Your task to perform on an android device: Go to Reddit.com Image 0: 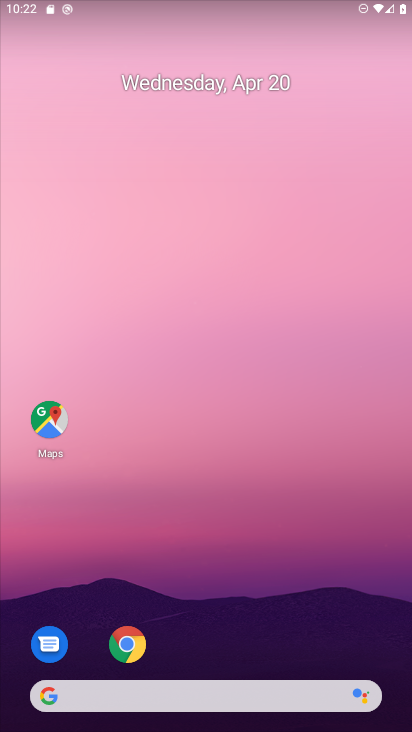
Step 0: drag from (345, 611) to (214, 115)
Your task to perform on an android device: Go to Reddit.com Image 1: 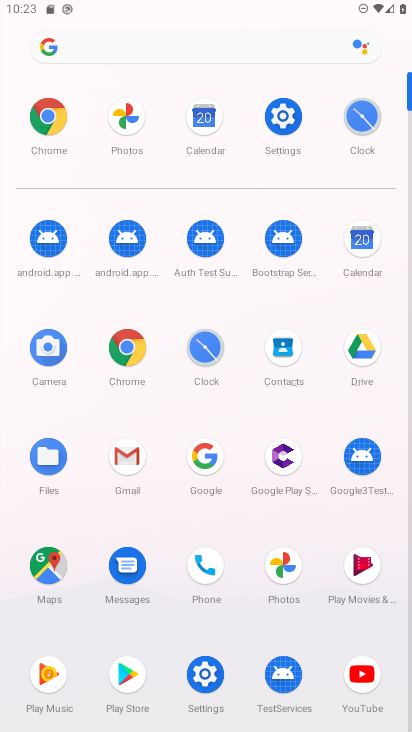
Step 1: click (135, 353)
Your task to perform on an android device: Go to Reddit.com Image 2: 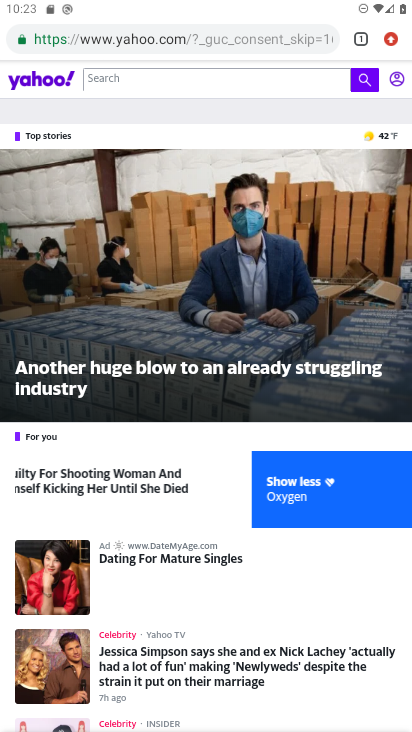
Step 2: press back button
Your task to perform on an android device: Go to Reddit.com Image 3: 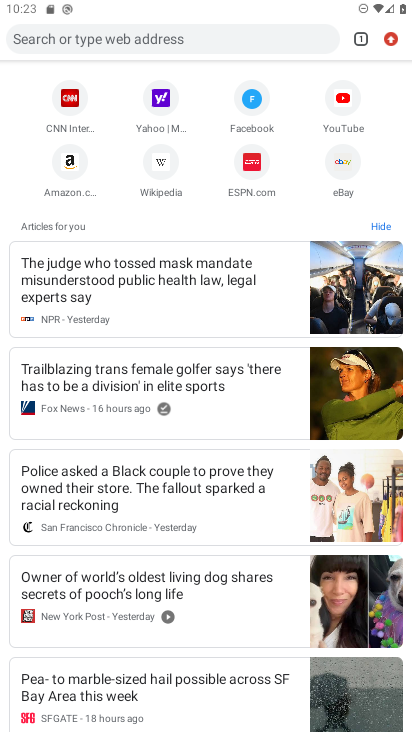
Step 3: click (155, 34)
Your task to perform on an android device: Go to Reddit.com Image 4: 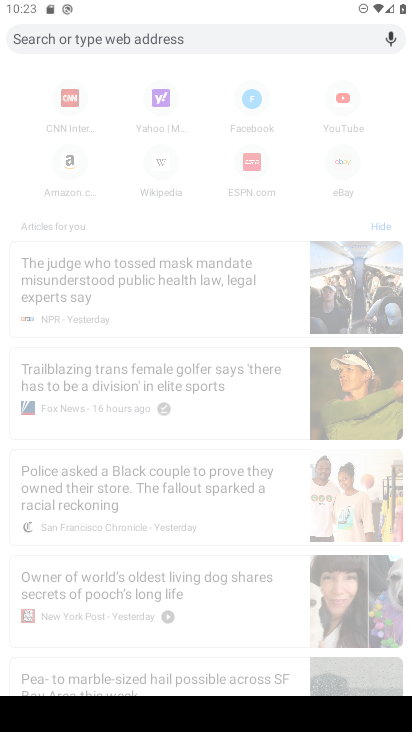
Step 4: type "reddit.com"
Your task to perform on an android device: Go to Reddit.com Image 5: 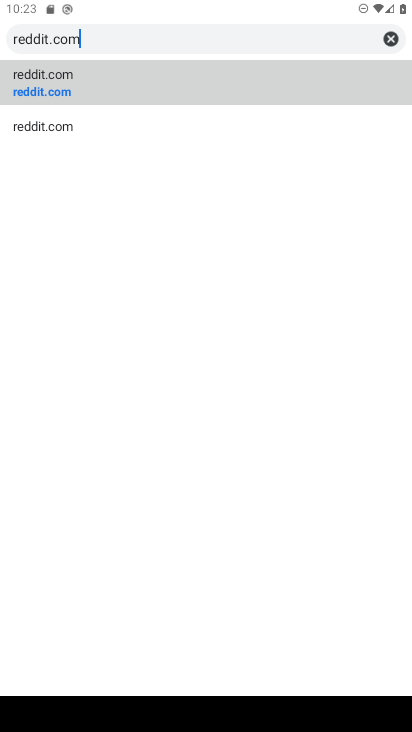
Step 5: click (174, 85)
Your task to perform on an android device: Go to Reddit.com Image 6: 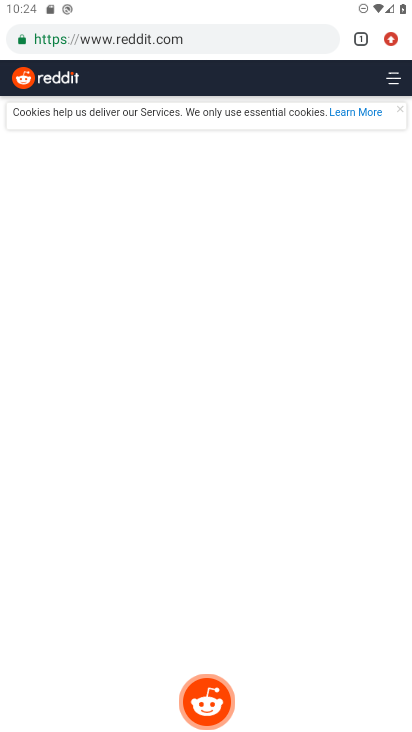
Step 6: task complete